Your task to perform on an android device: Go to accessibility settings Image 0: 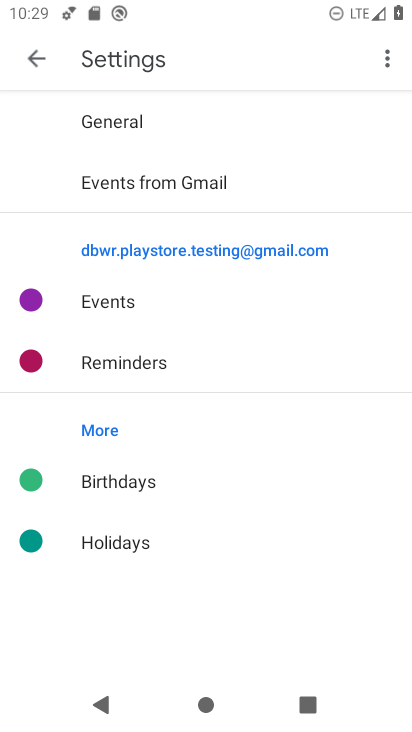
Step 0: press home button
Your task to perform on an android device: Go to accessibility settings Image 1: 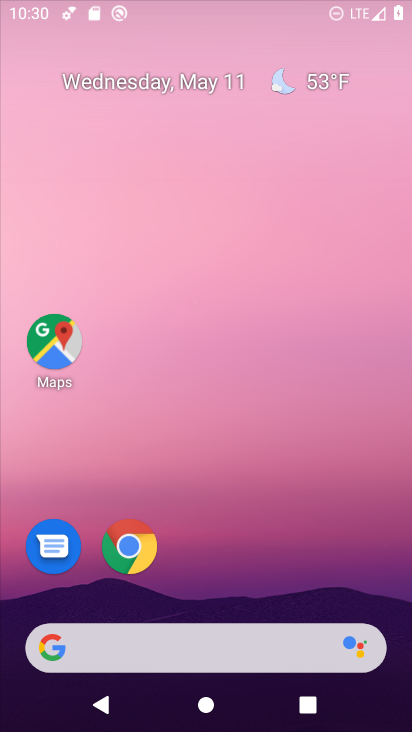
Step 1: drag from (388, 614) to (225, 23)
Your task to perform on an android device: Go to accessibility settings Image 2: 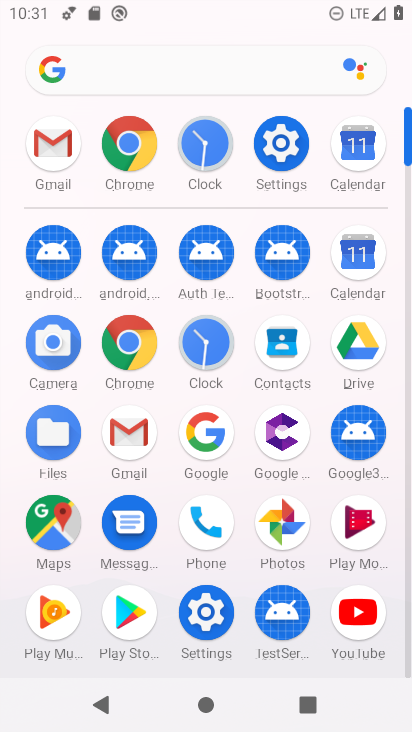
Step 2: click (188, 620)
Your task to perform on an android device: Go to accessibility settings Image 3: 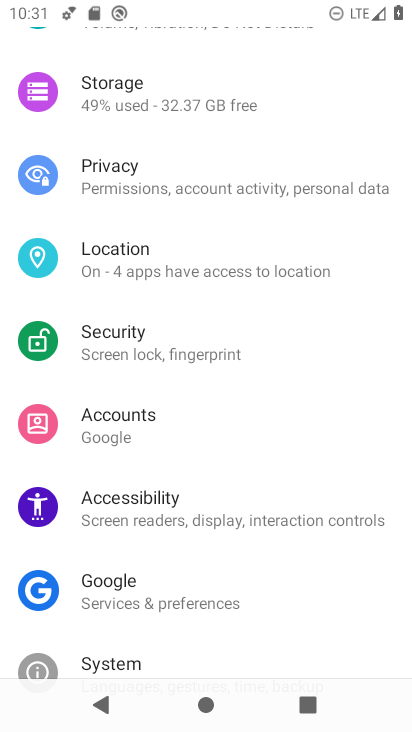
Step 3: drag from (168, 622) to (179, 167)
Your task to perform on an android device: Go to accessibility settings Image 4: 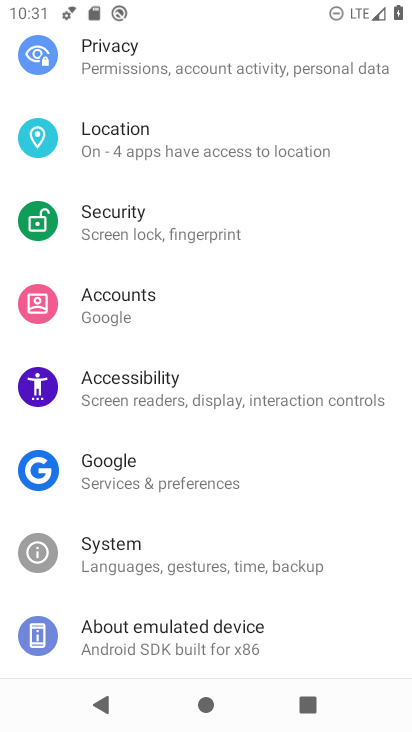
Step 4: drag from (185, 136) to (240, 504)
Your task to perform on an android device: Go to accessibility settings Image 5: 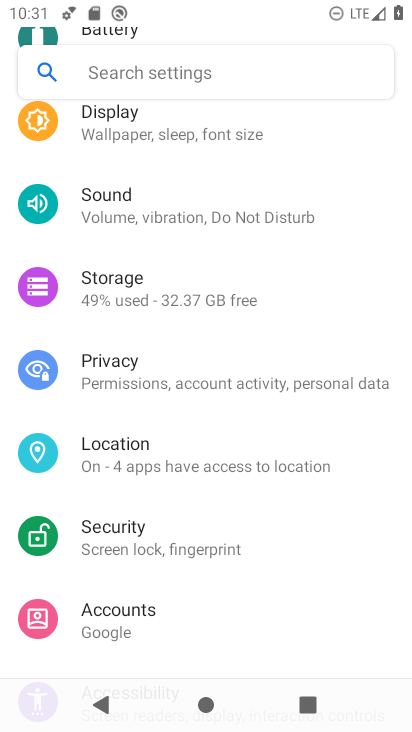
Step 5: drag from (95, 649) to (247, 136)
Your task to perform on an android device: Go to accessibility settings Image 6: 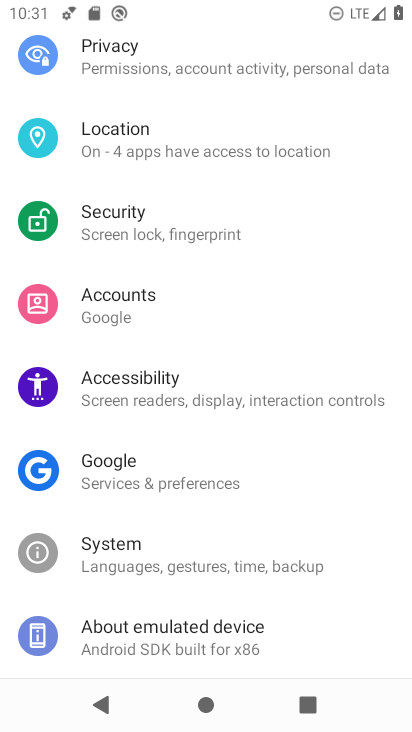
Step 6: click (187, 396)
Your task to perform on an android device: Go to accessibility settings Image 7: 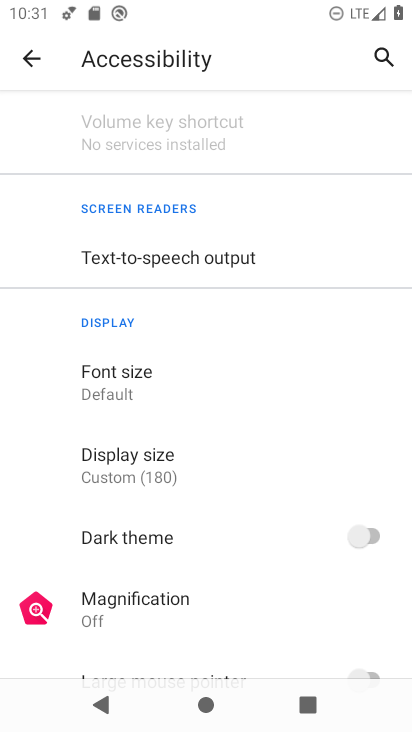
Step 7: task complete